Your task to perform on an android device: turn on airplane mode Image 0: 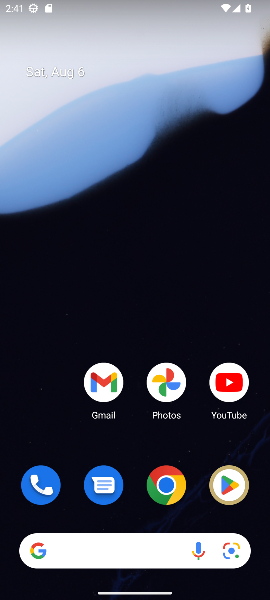
Step 0: press home button
Your task to perform on an android device: turn on airplane mode Image 1: 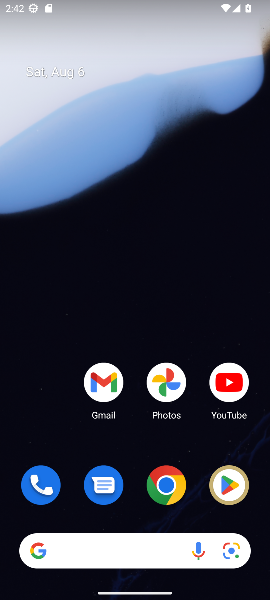
Step 1: drag from (141, 447) to (180, 10)
Your task to perform on an android device: turn on airplane mode Image 2: 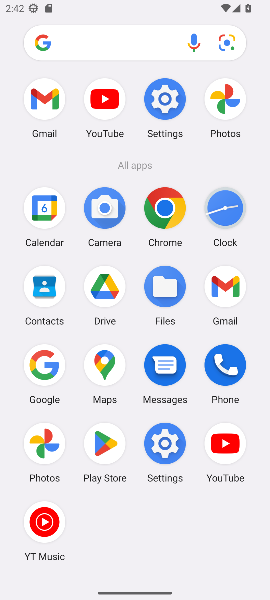
Step 2: click (162, 93)
Your task to perform on an android device: turn on airplane mode Image 3: 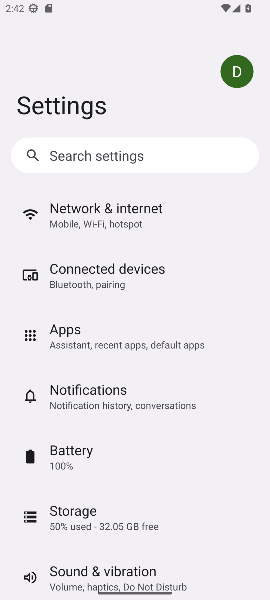
Step 3: click (171, 210)
Your task to perform on an android device: turn on airplane mode Image 4: 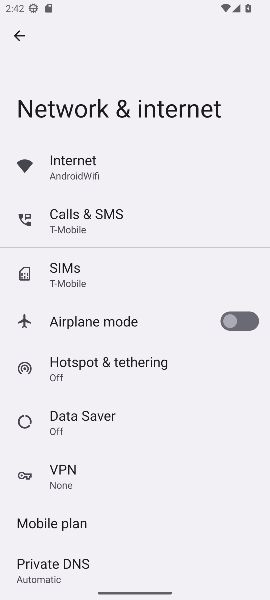
Step 4: click (239, 317)
Your task to perform on an android device: turn on airplane mode Image 5: 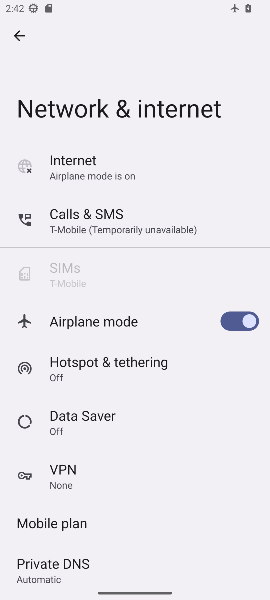
Step 5: task complete